Your task to perform on an android device: turn off improve location accuracy Image 0: 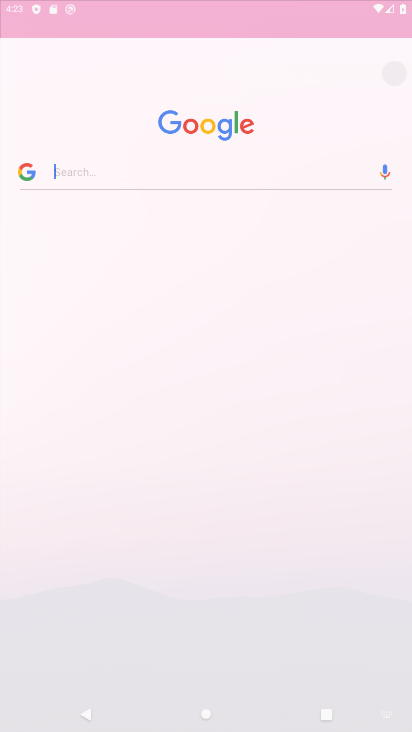
Step 0: drag from (268, 527) to (323, 99)
Your task to perform on an android device: turn off improve location accuracy Image 1: 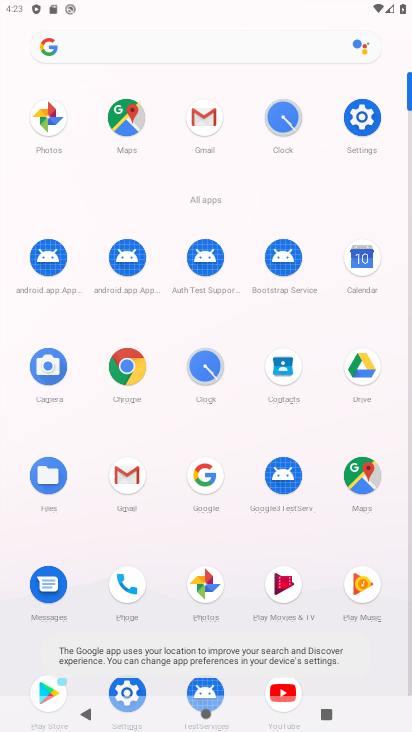
Step 1: click (361, 111)
Your task to perform on an android device: turn off improve location accuracy Image 2: 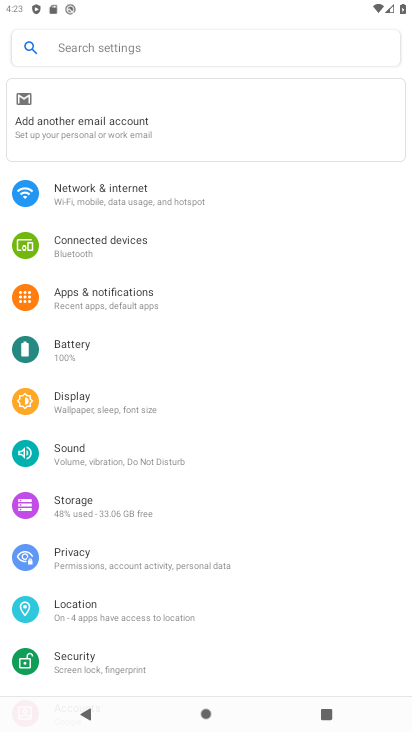
Step 2: click (96, 606)
Your task to perform on an android device: turn off improve location accuracy Image 3: 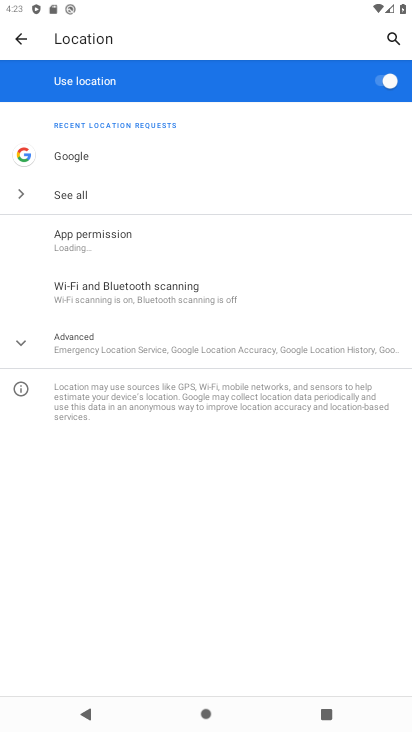
Step 3: click (126, 354)
Your task to perform on an android device: turn off improve location accuracy Image 4: 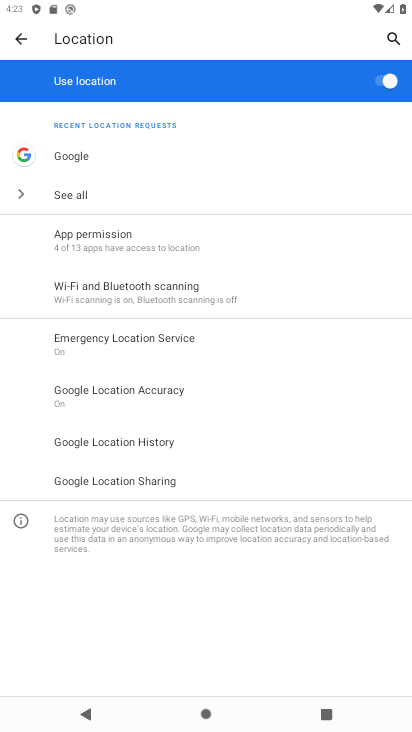
Step 4: click (126, 403)
Your task to perform on an android device: turn off improve location accuracy Image 5: 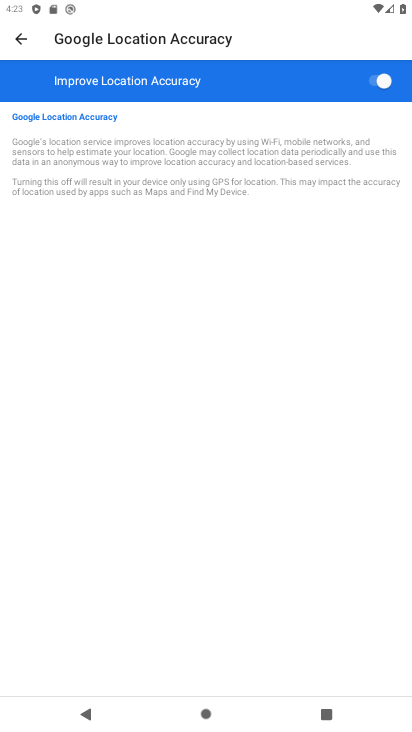
Step 5: click (379, 87)
Your task to perform on an android device: turn off improve location accuracy Image 6: 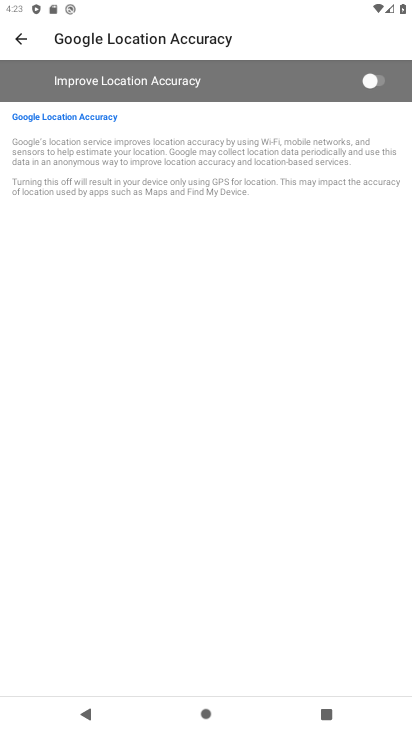
Step 6: task complete